Your task to perform on an android device: What is the recent news? Image 0: 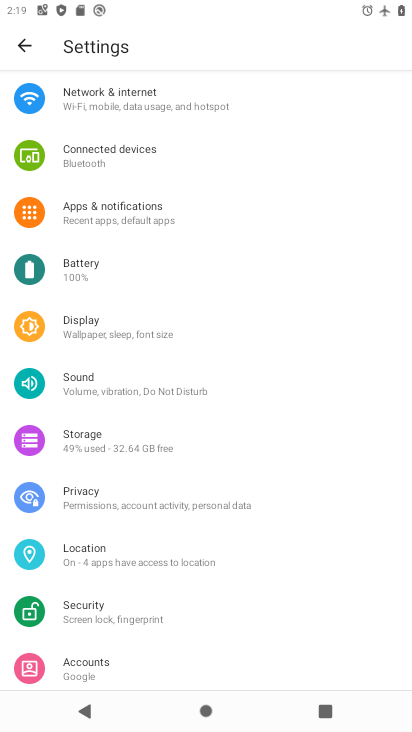
Step 0: press home button
Your task to perform on an android device: What is the recent news? Image 1: 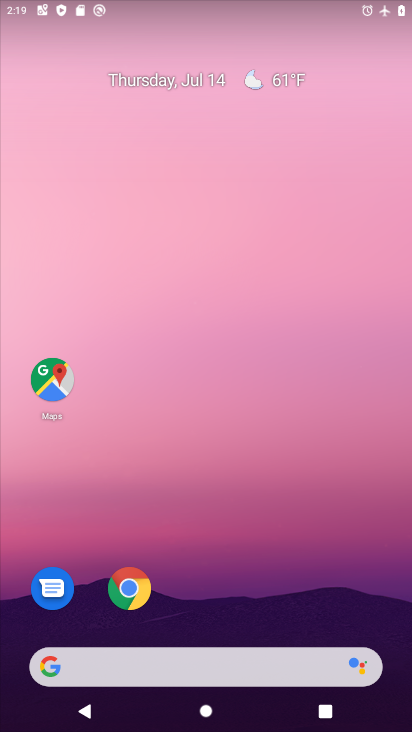
Step 1: click (130, 590)
Your task to perform on an android device: What is the recent news? Image 2: 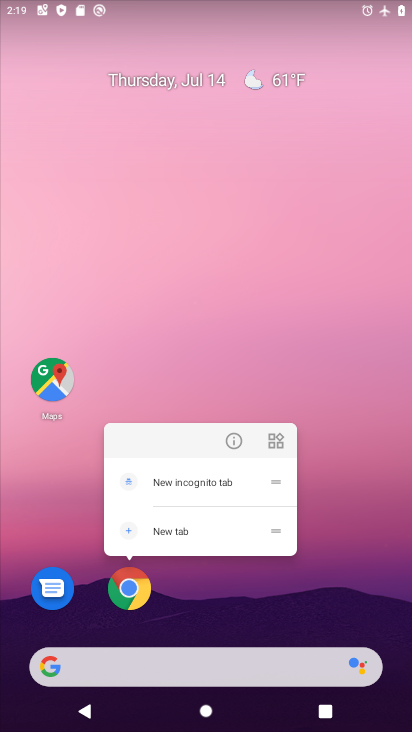
Step 2: click (124, 590)
Your task to perform on an android device: What is the recent news? Image 3: 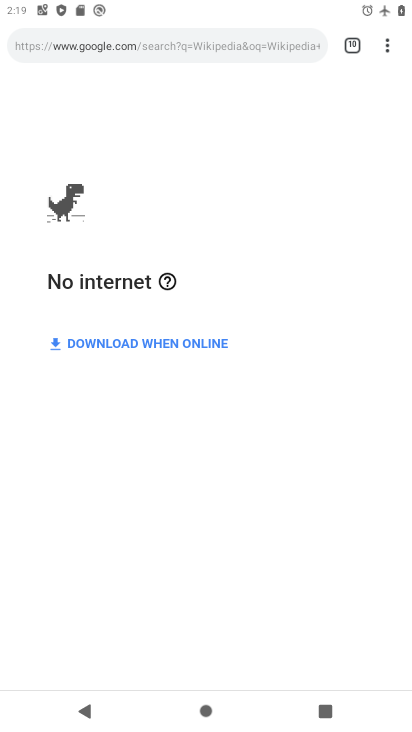
Step 3: click (374, 37)
Your task to perform on an android device: What is the recent news? Image 4: 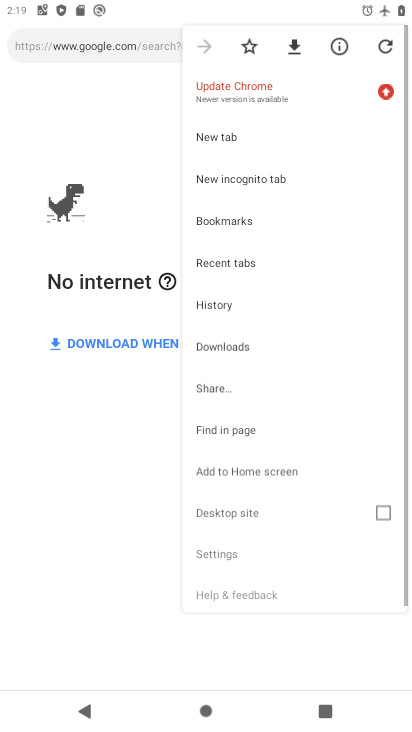
Step 4: click (389, 44)
Your task to perform on an android device: What is the recent news? Image 5: 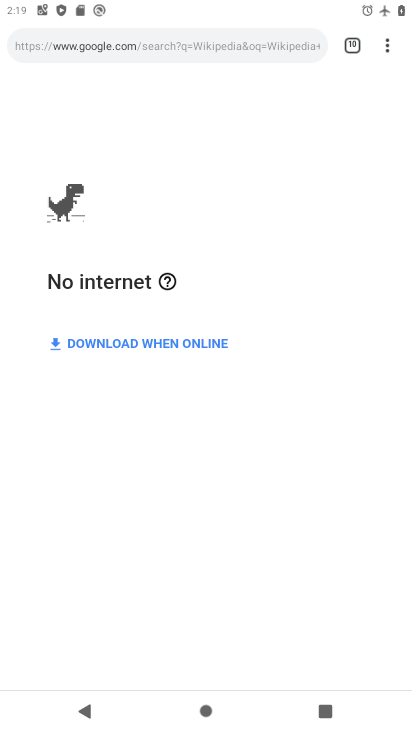
Step 5: click (214, 129)
Your task to perform on an android device: What is the recent news? Image 6: 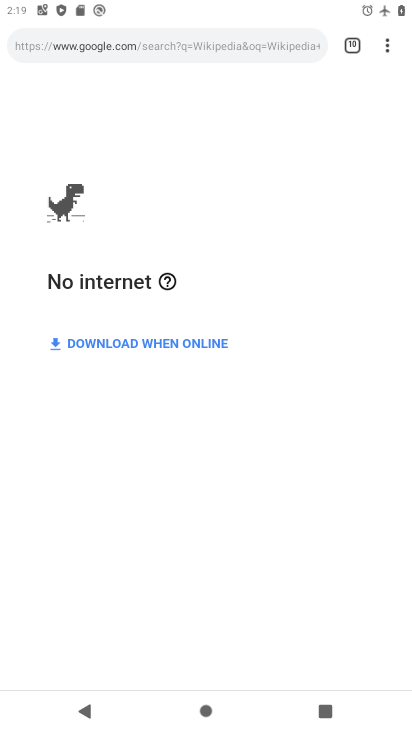
Step 6: click (376, 33)
Your task to perform on an android device: What is the recent news? Image 7: 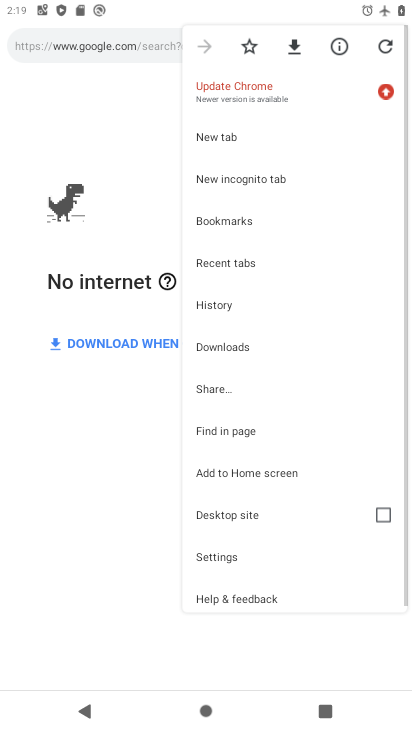
Step 7: click (221, 119)
Your task to perform on an android device: What is the recent news? Image 8: 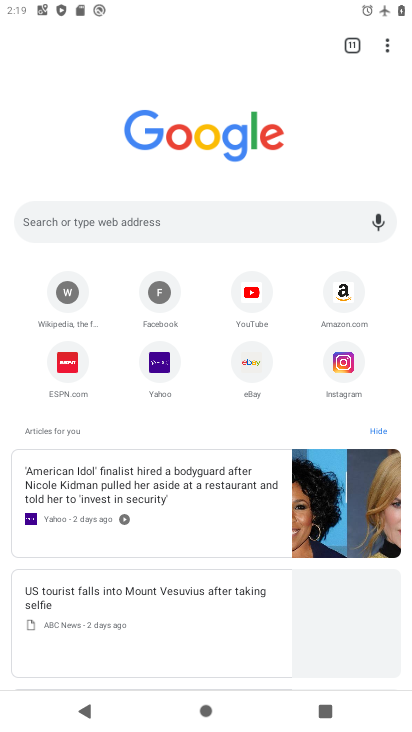
Step 8: click (211, 214)
Your task to perform on an android device: What is the recent news? Image 9: 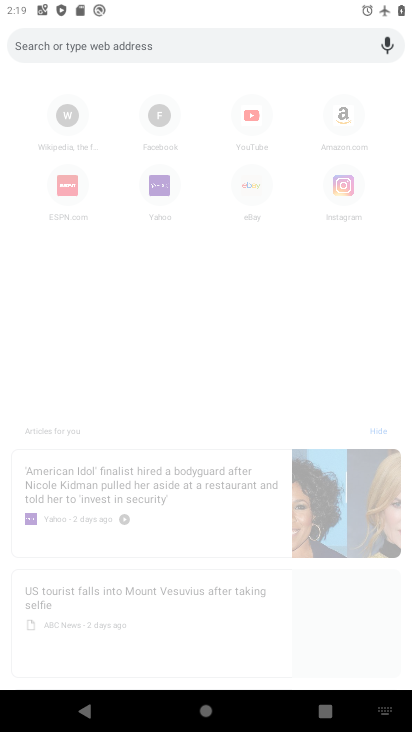
Step 9: type "What is the recent news "
Your task to perform on an android device: What is the recent news? Image 10: 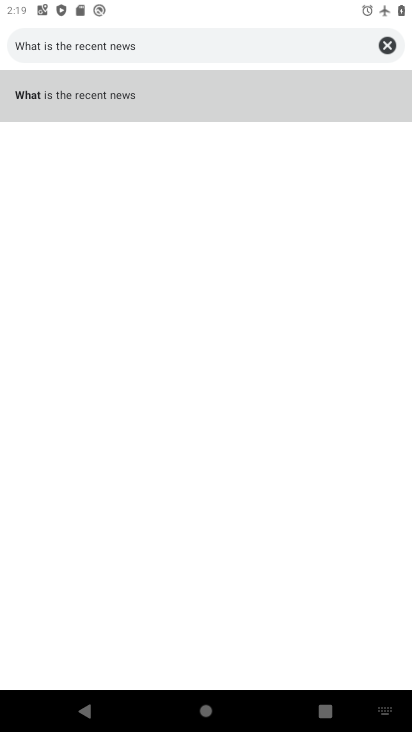
Step 10: click (144, 87)
Your task to perform on an android device: What is the recent news? Image 11: 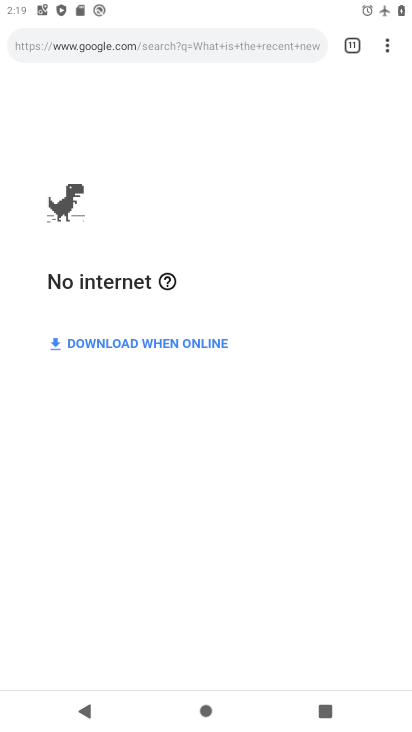
Step 11: task complete